Your task to perform on an android device: install app "Instagram" Image 0: 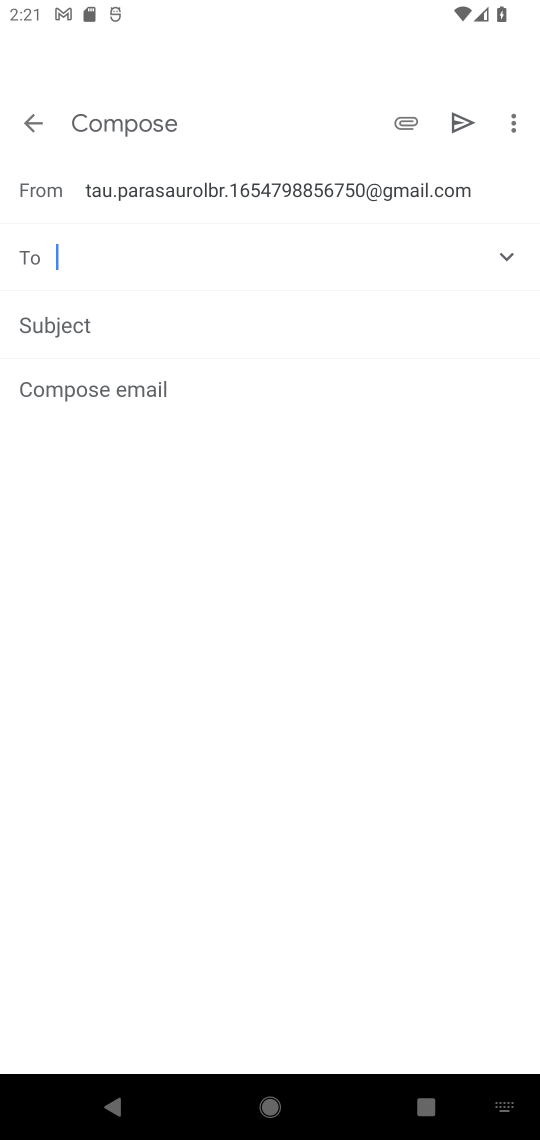
Step 0: press home button
Your task to perform on an android device: install app "Instagram" Image 1: 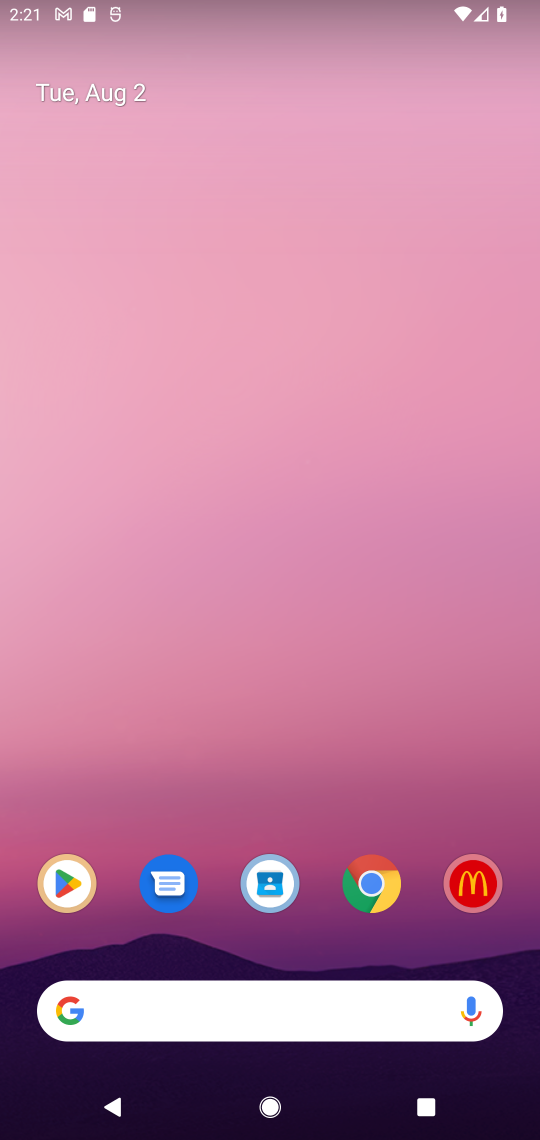
Step 1: click (79, 881)
Your task to perform on an android device: install app "Instagram" Image 2: 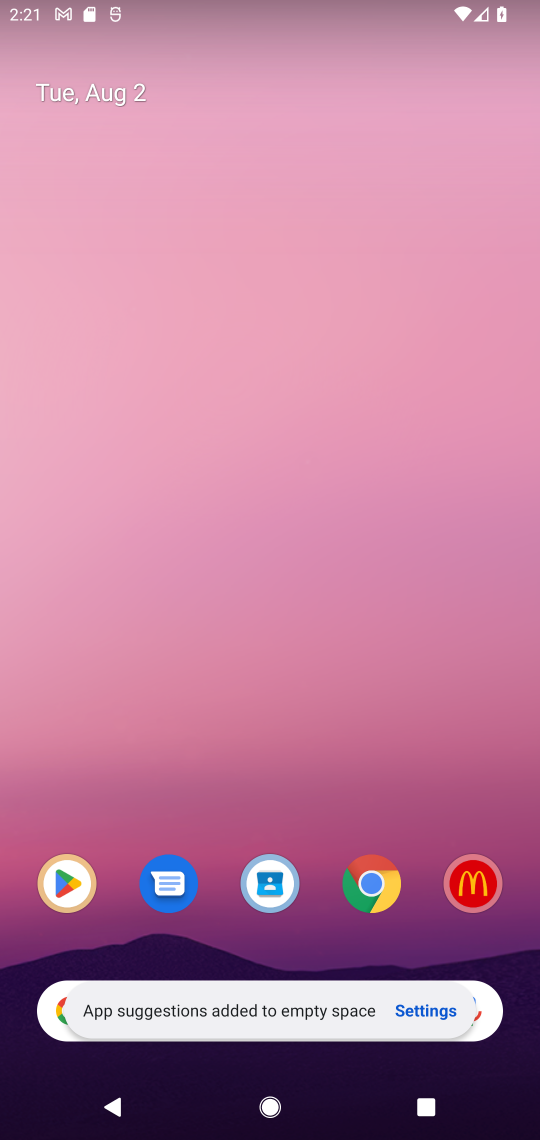
Step 2: click (76, 911)
Your task to perform on an android device: install app "Instagram" Image 3: 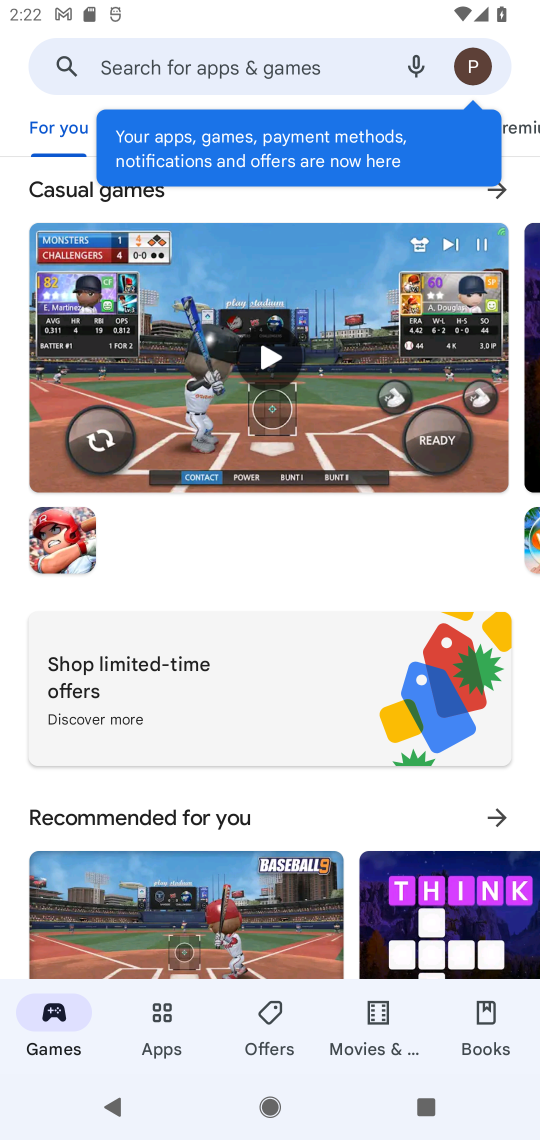
Step 3: click (224, 62)
Your task to perform on an android device: install app "Instagram" Image 4: 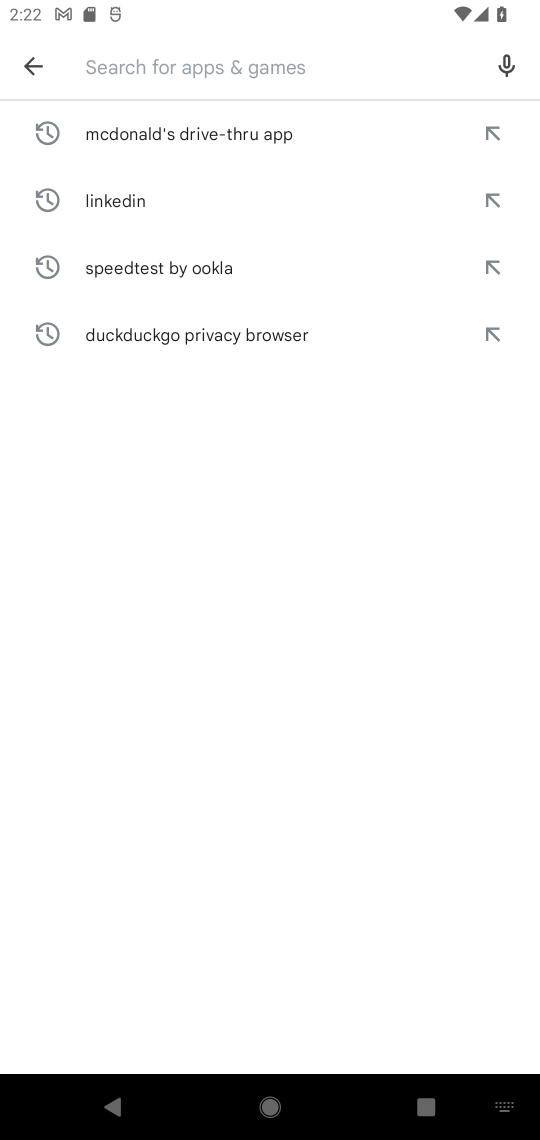
Step 4: type "Instagram"
Your task to perform on an android device: install app "Instagram" Image 5: 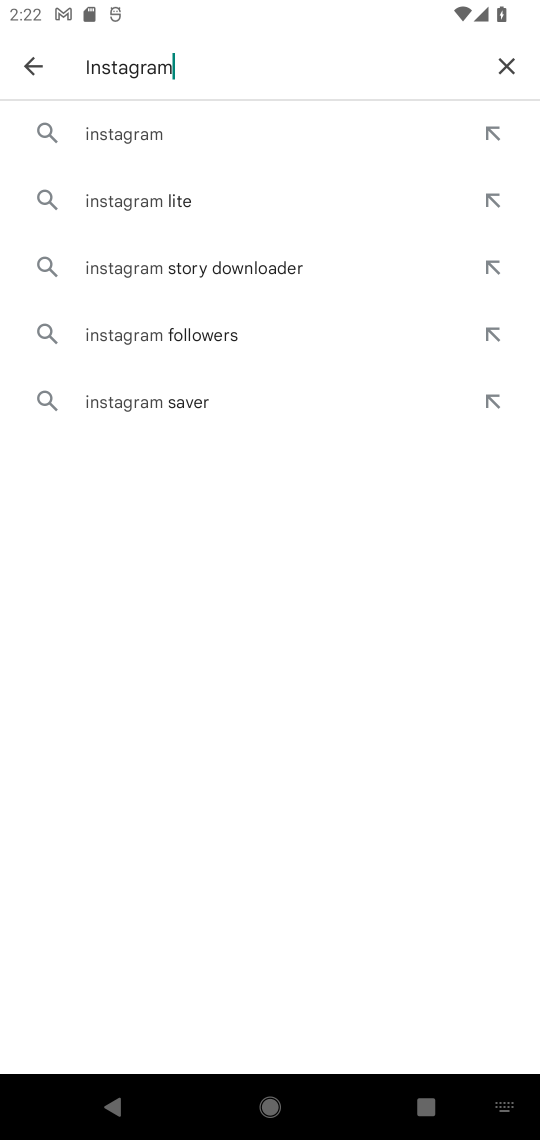
Step 5: type "Instagram"
Your task to perform on an android device: install app "Instagram" Image 6: 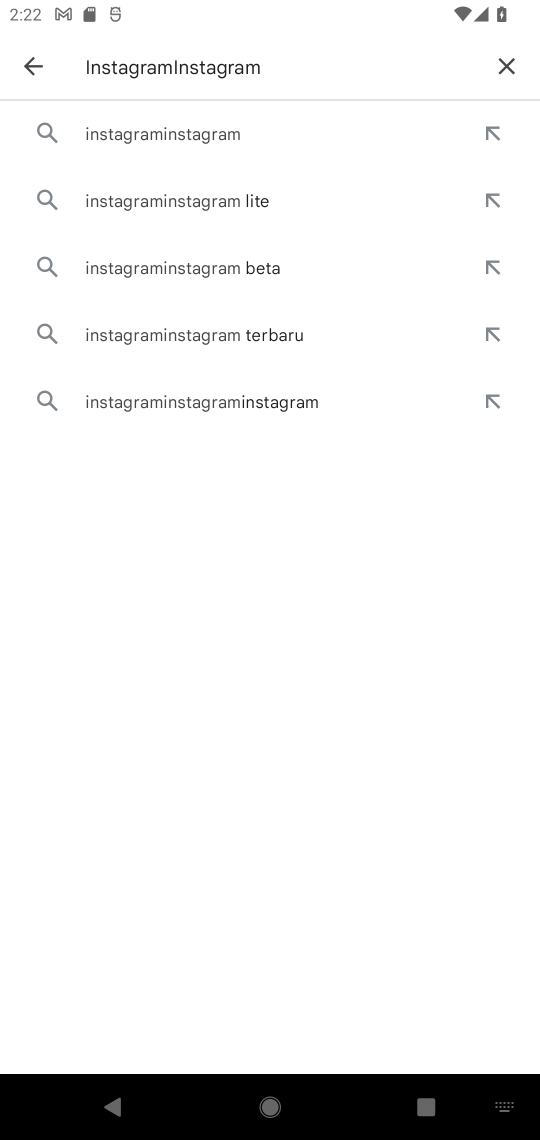
Step 6: click (133, 134)
Your task to perform on an android device: install app "Instagram" Image 7: 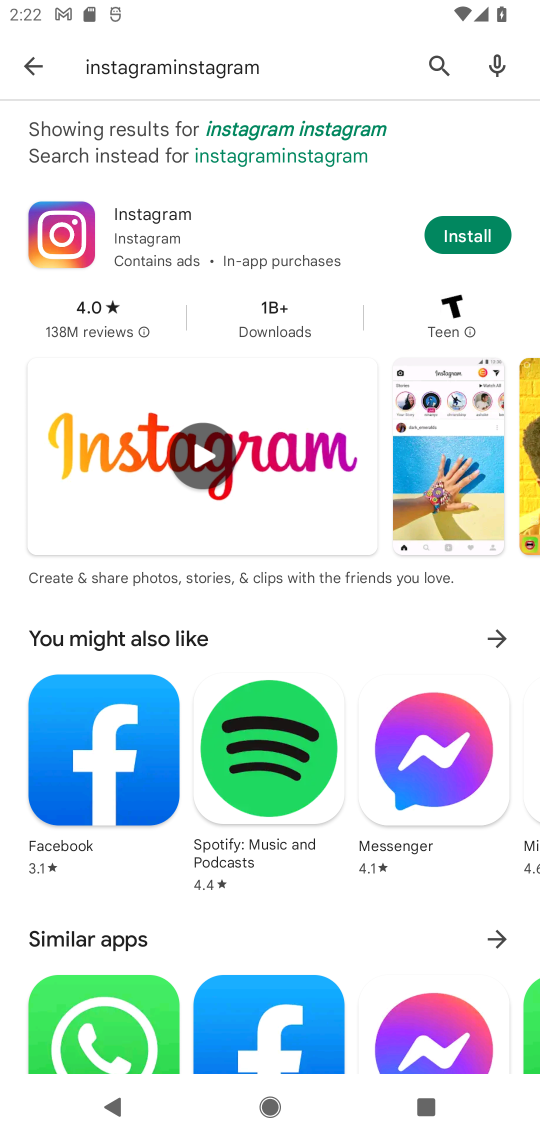
Step 7: click (451, 234)
Your task to perform on an android device: install app "Instagram" Image 8: 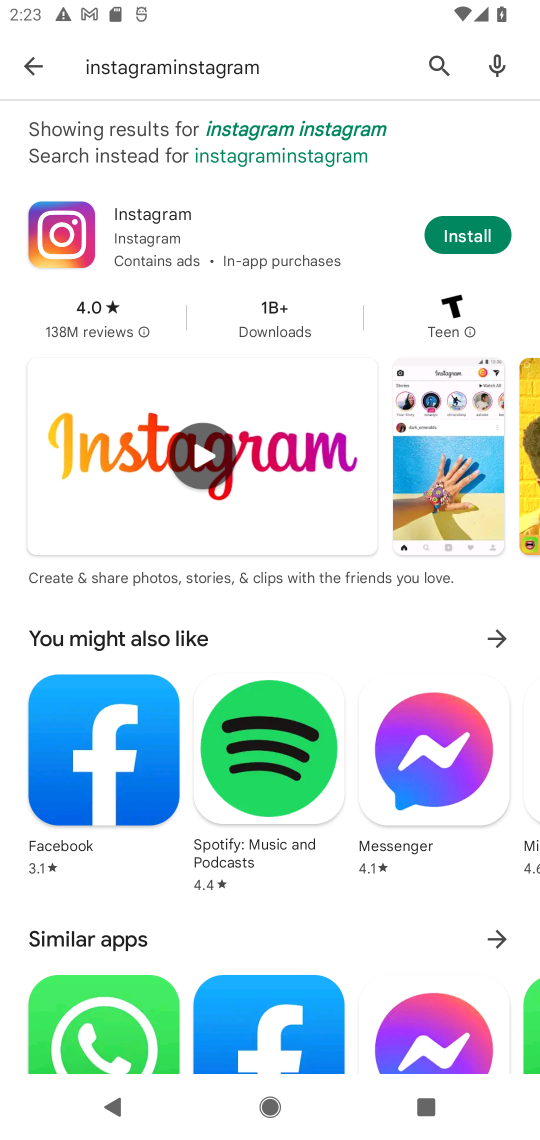
Step 8: click (500, 223)
Your task to perform on an android device: install app "Instagram" Image 9: 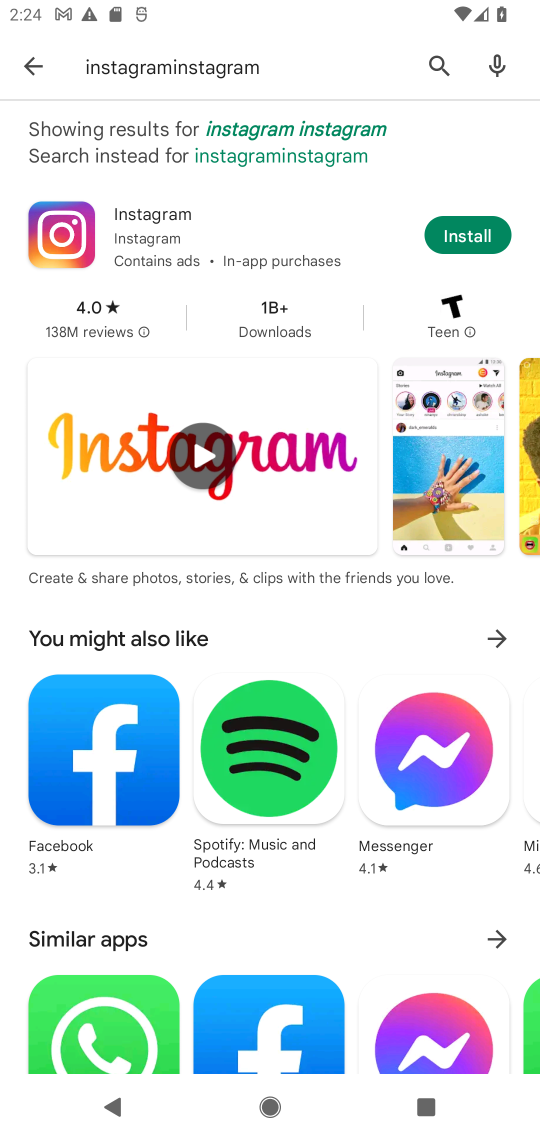
Step 9: click (451, 244)
Your task to perform on an android device: install app "Instagram" Image 10: 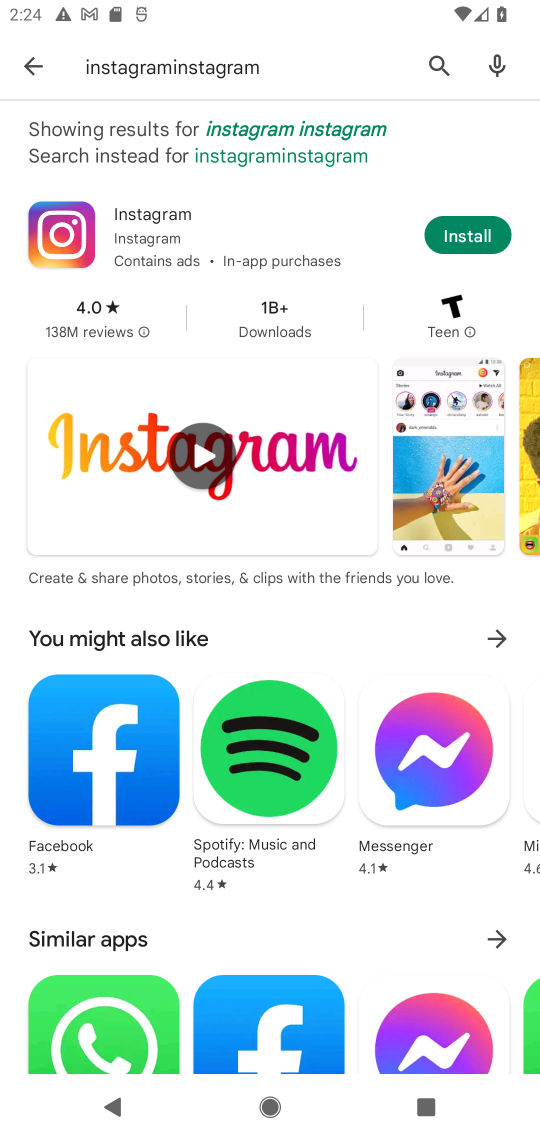
Step 10: click (451, 244)
Your task to perform on an android device: install app "Instagram" Image 11: 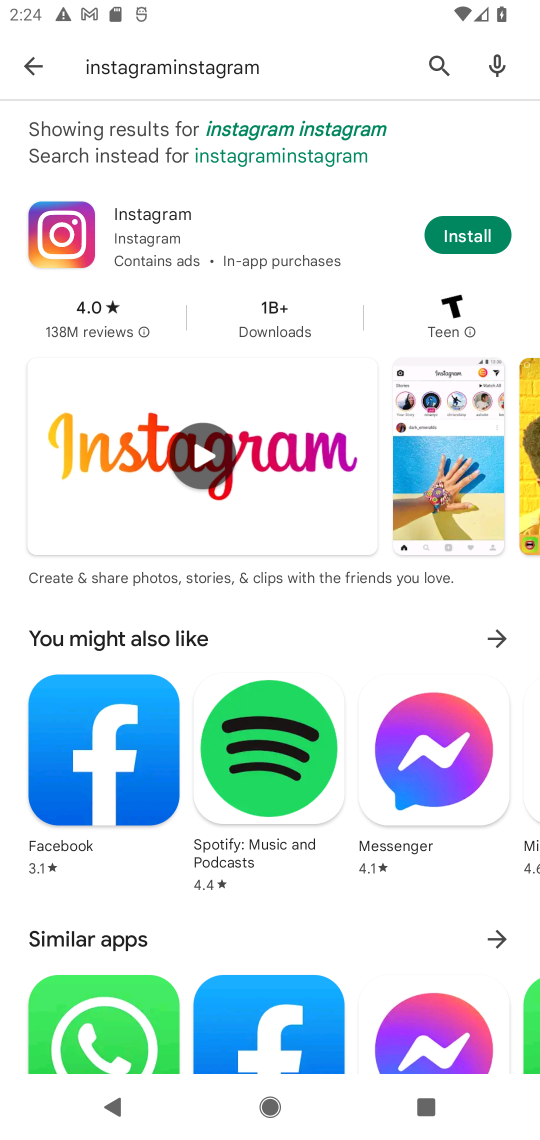
Step 11: task complete